Your task to perform on an android device: Clear the shopping cart on bestbuy. Image 0: 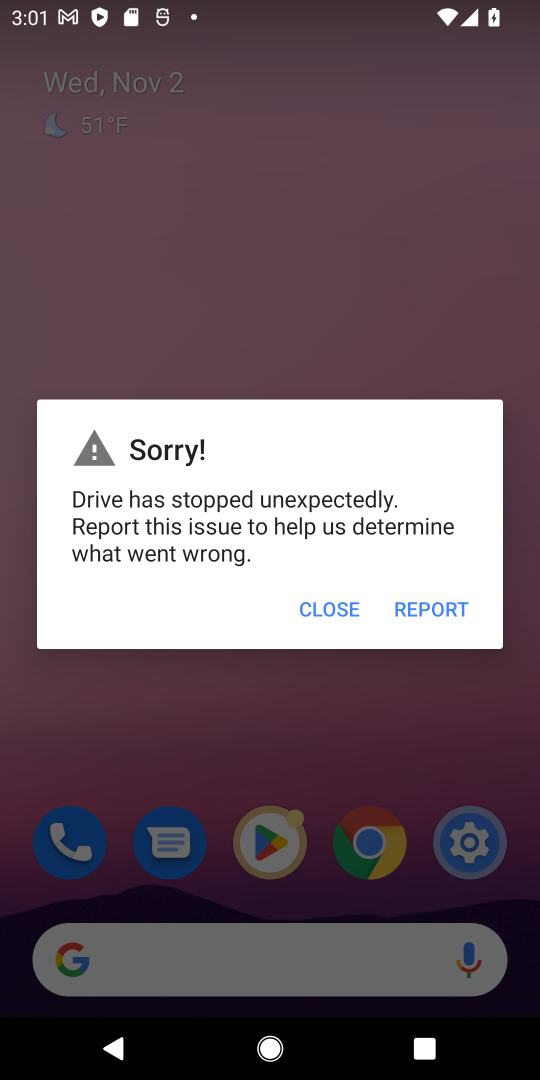
Step 0: press home button
Your task to perform on an android device: Clear the shopping cart on bestbuy. Image 1: 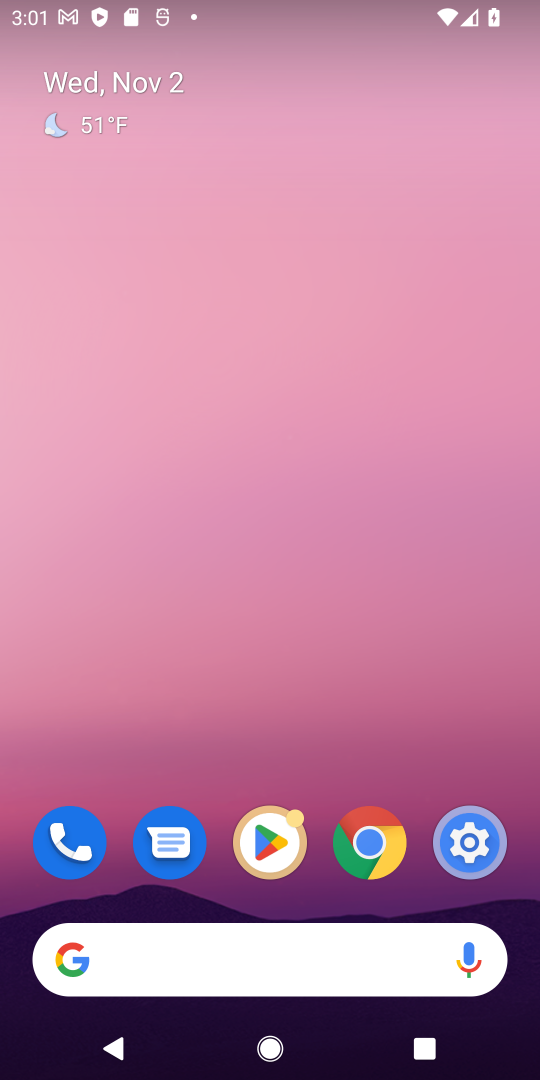
Step 1: click (259, 952)
Your task to perform on an android device: Clear the shopping cart on bestbuy. Image 2: 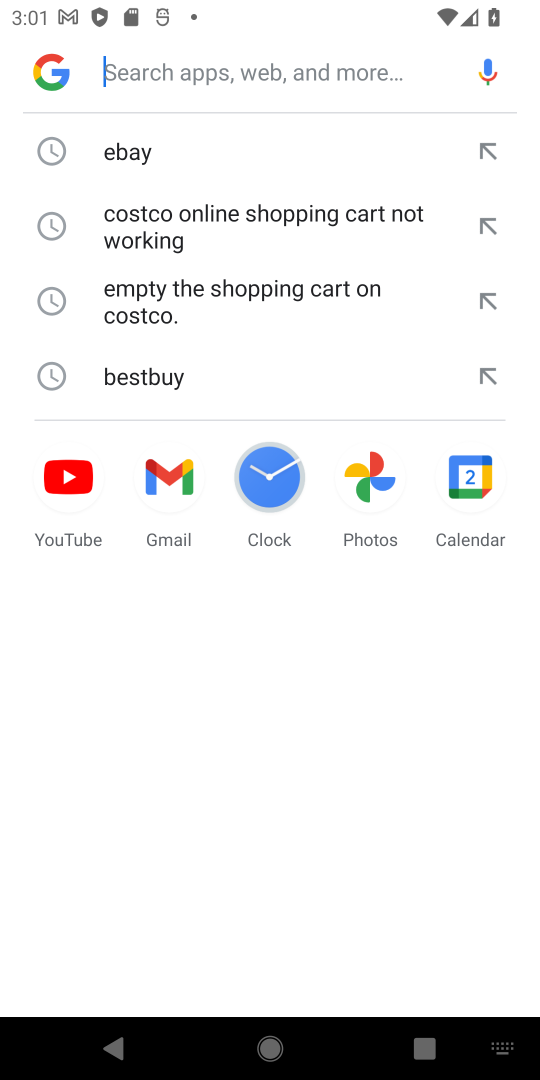
Step 2: click (182, 375)
Your task to perform on an android device: Clear the shopping cart on bestbuy. Image 3: 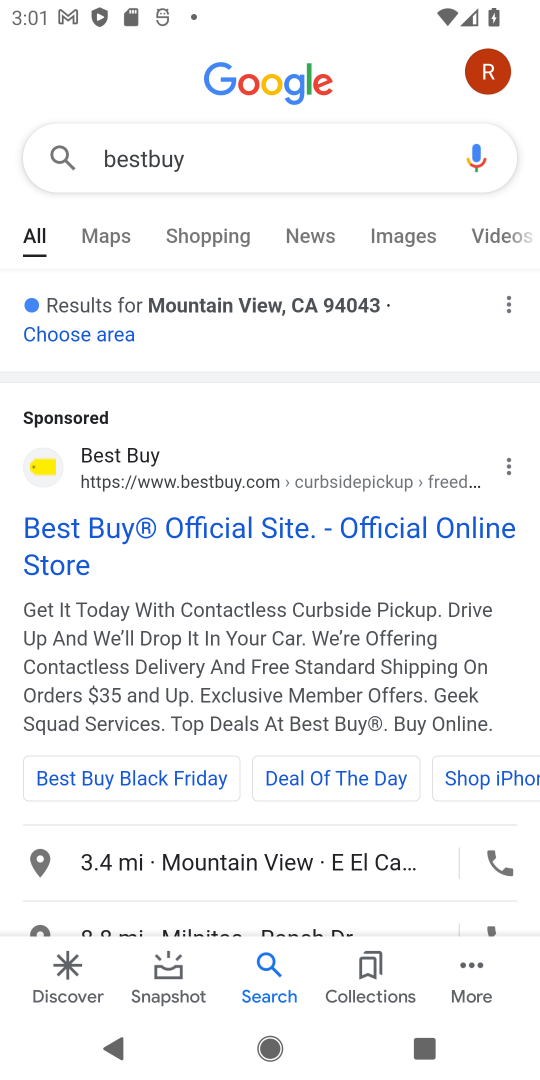
Step 3: drag from (216, 733) to (161, 343)
Your task to perform on an android device: Clear the shopping cart on bestbuy. Image 4: 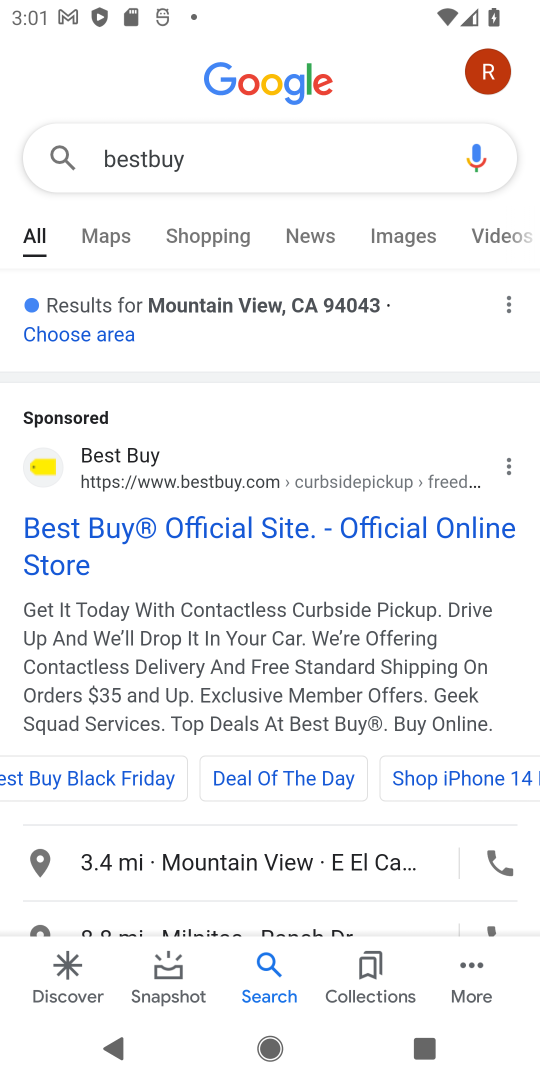
Step 4: drag from (261, 697) to (187, 390)
Your task to perform on an android device: Clear the shopping cart on bestbuy. Image 5: 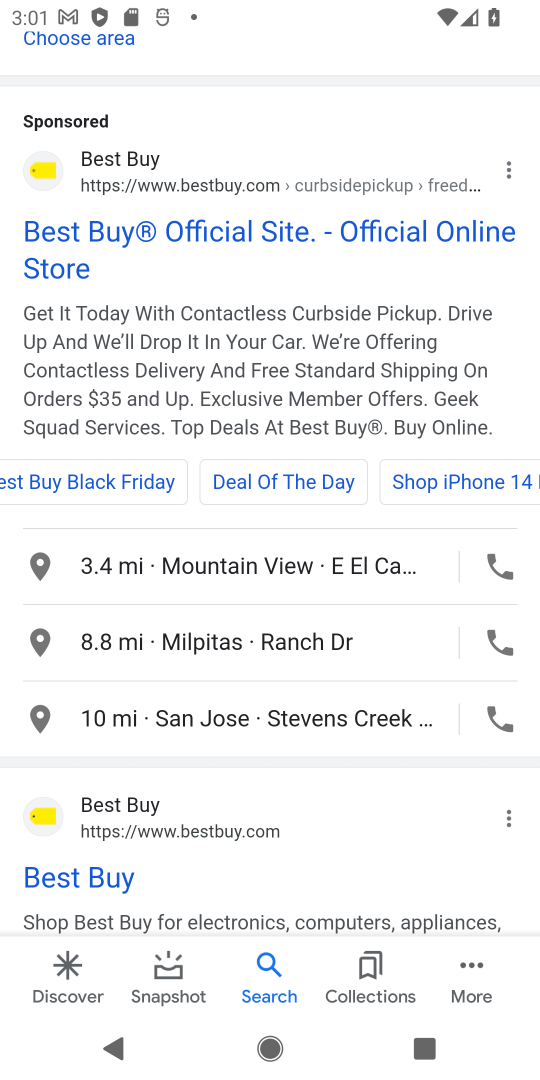
Step 5: click (100, 880)
Your task to perform on an android device: Clear the shopping cart on bestbuy. Image 6: 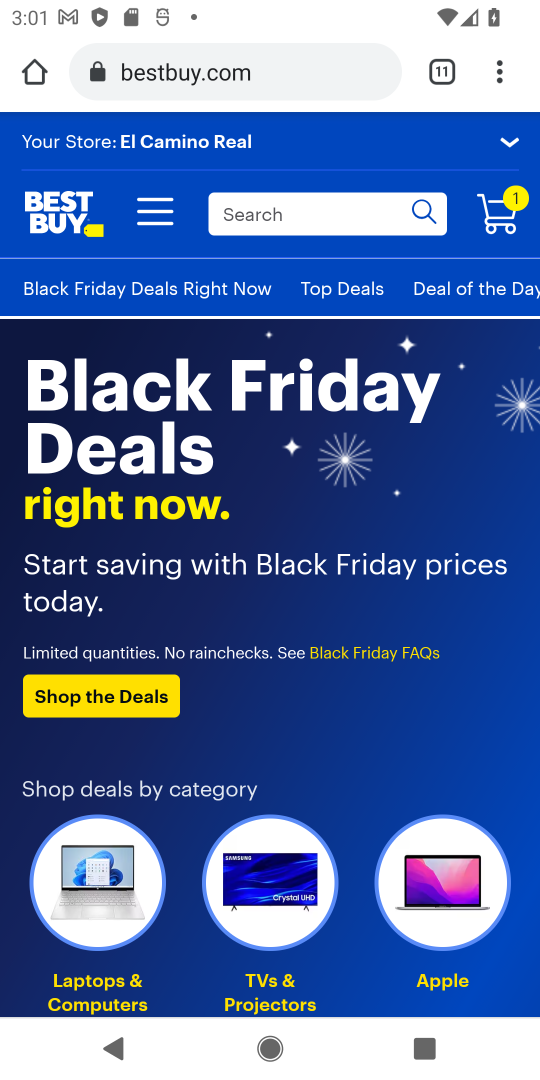
Step 6: click (508, 200)
Your task to perform on an android device: Clear the shopping cart on bestbuy. Image 7: 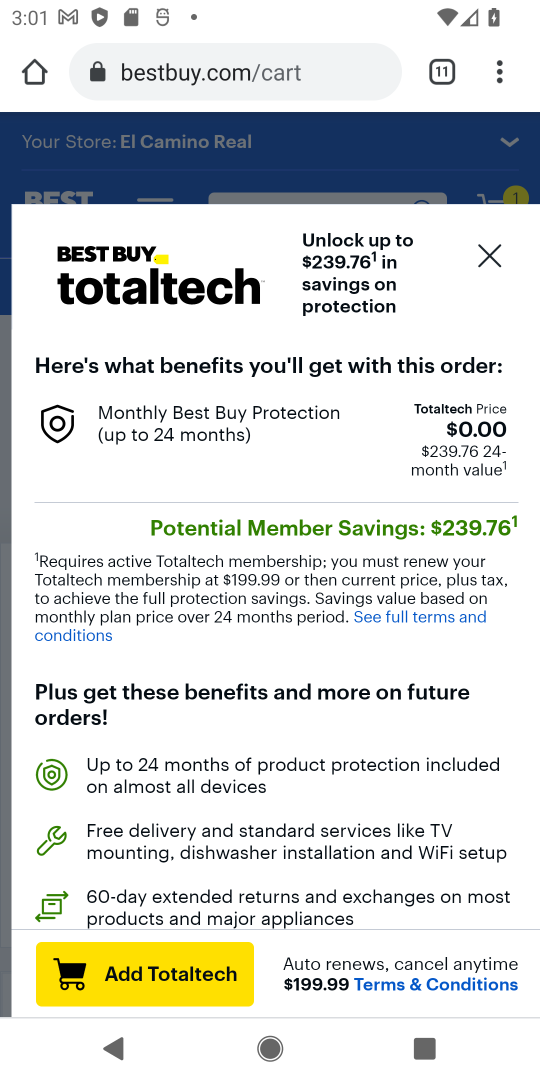
Step 7: click (488, 251)
Your task to perform on an android device: Clear the shopping cart on bestbuy. Image 8: 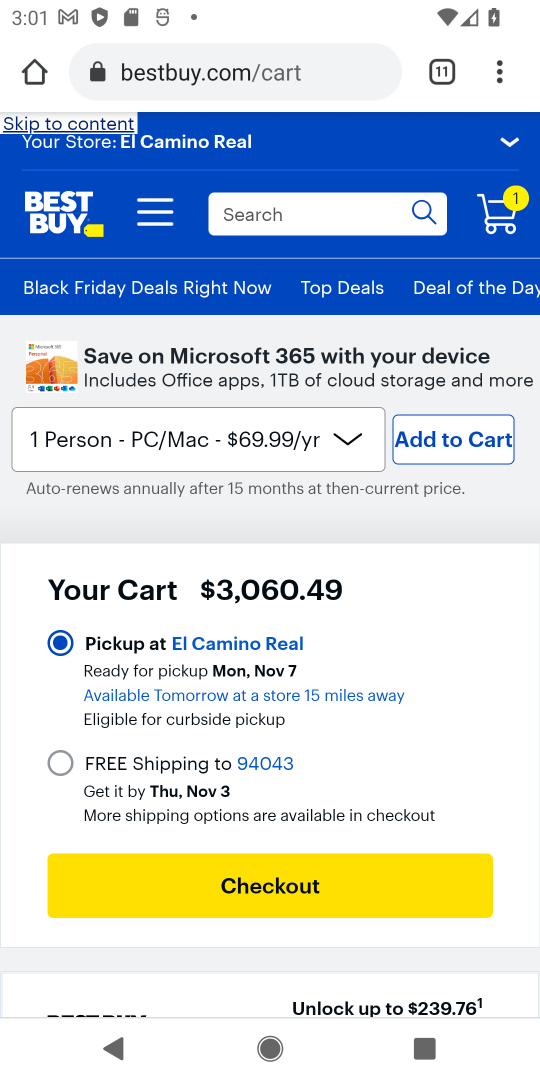
Step 8: drag from (411, 717) to (333, 403)
Your task to perform on an android device: Clear the shopping cart on bestbuy. Image 9: 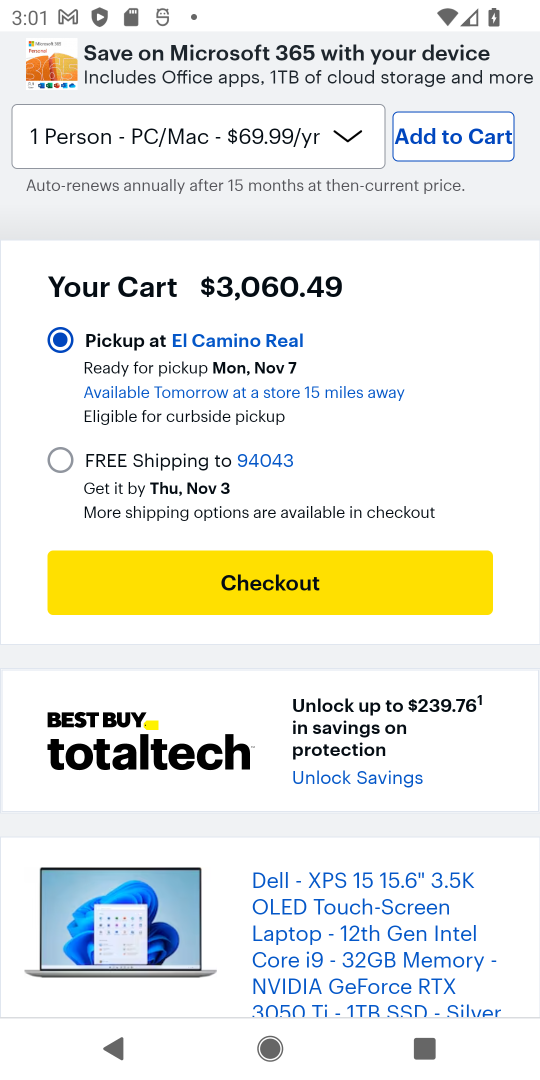
Step 9: drag from (438, 472) to (381, 224)
Your task to perform on an android device: Clear the shopping cart on bestbuy. Image 10: 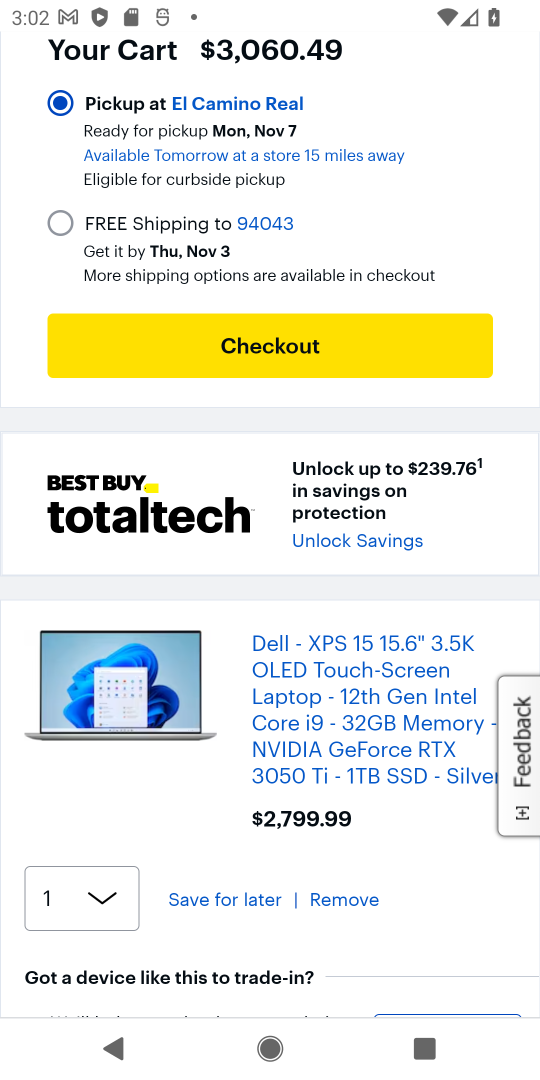
Step 10: click (337, 896)
Your task to perform on an android device: Clear the shopping cart on bestbuy. Image 11: 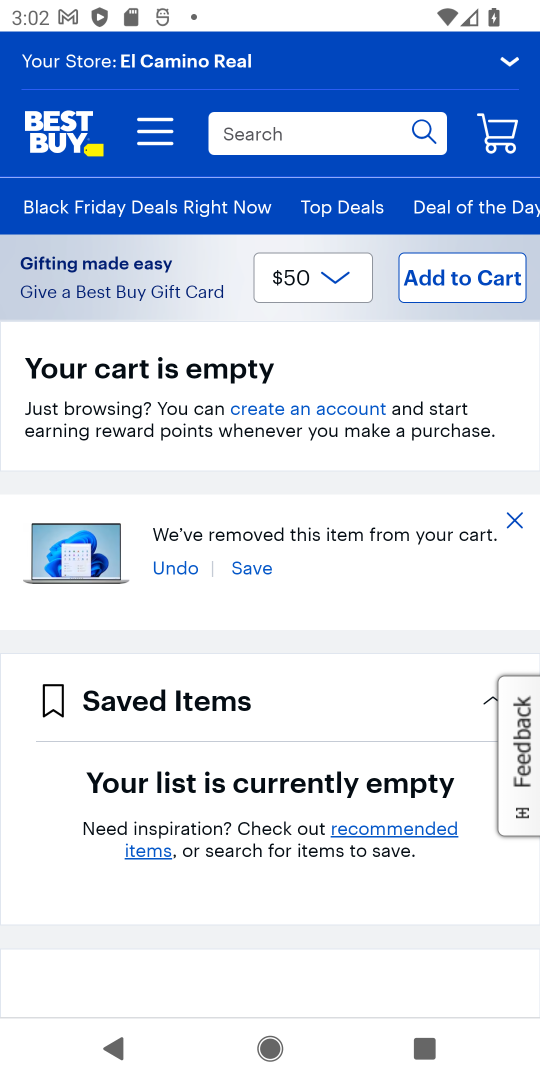
Step 11: click (159, 665)
Your task to perform on an android device: Clear the shopping cart on bestbuy. Image 12: 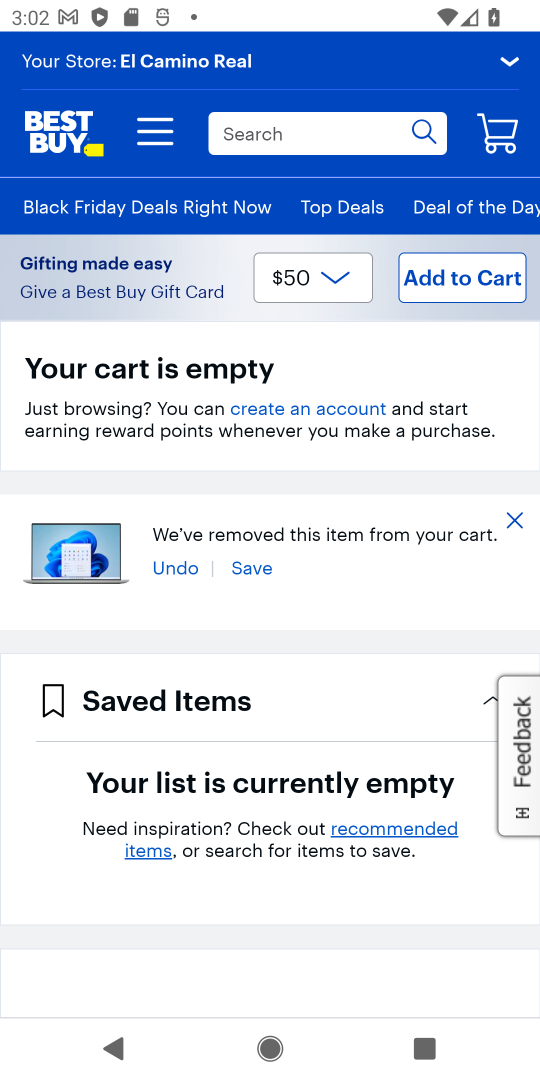
Step 12: task complete